Your task to perform on an android device: Go to internet settings Image 0: 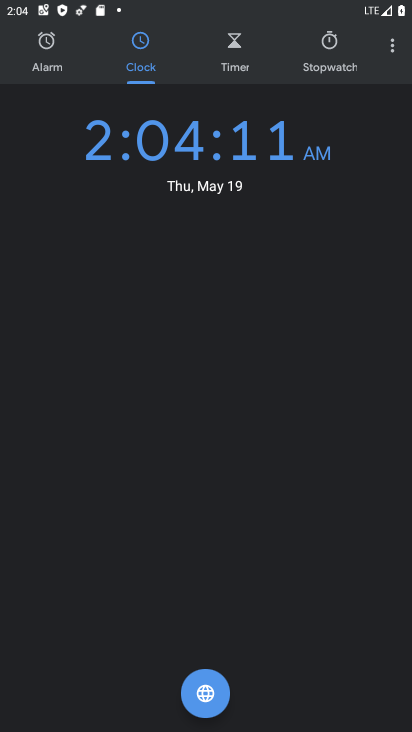
Step 0: press home button
Your task to perform on an android device: Go to internet settings Image 1: 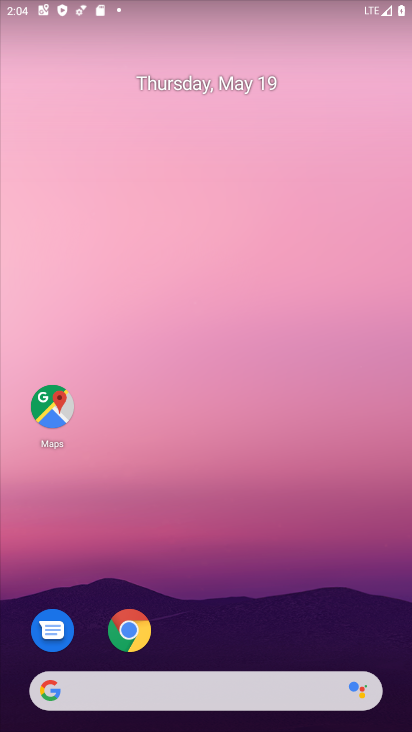
Step 1: drag from (383, 631) to (334, 73)
Your task to perform on an android device: Go to internet settings Image 2: 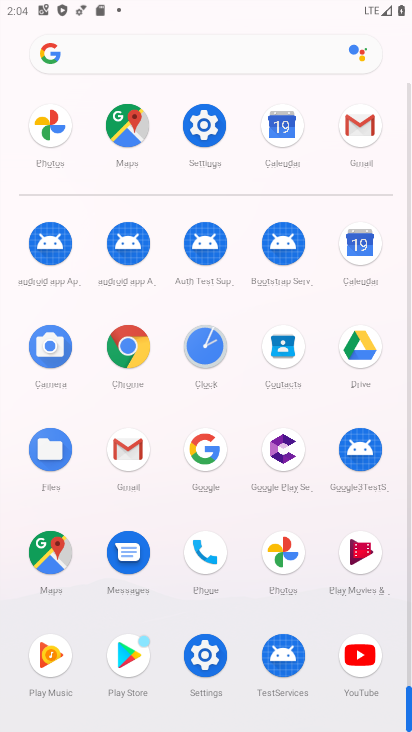
Step 2: click (207, 661)
Your task to perform on an android device: Go to internet settings Image 3: 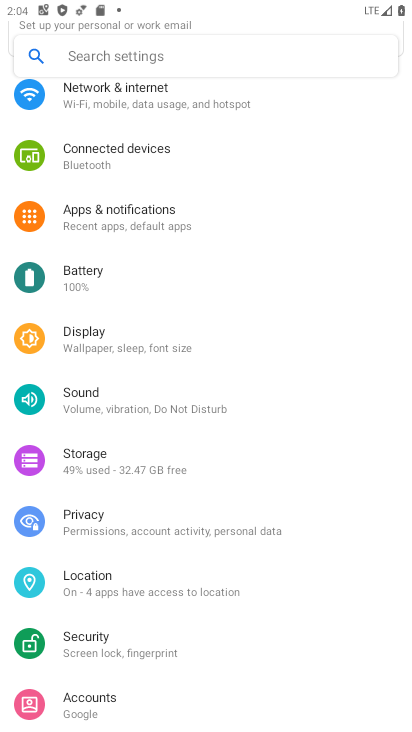
Step 3: click (110, 85)
Your task to perform on an android device: Go to internet settings Image 4: 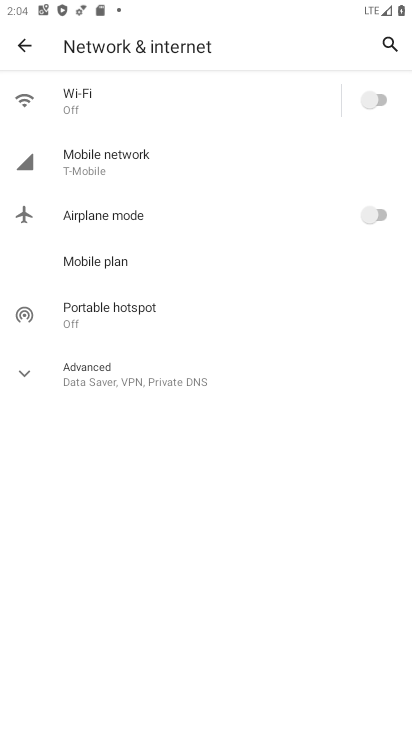
Step 4: click (61, 96)
Your task to perform on an android device: Go to internet settings Image 5: 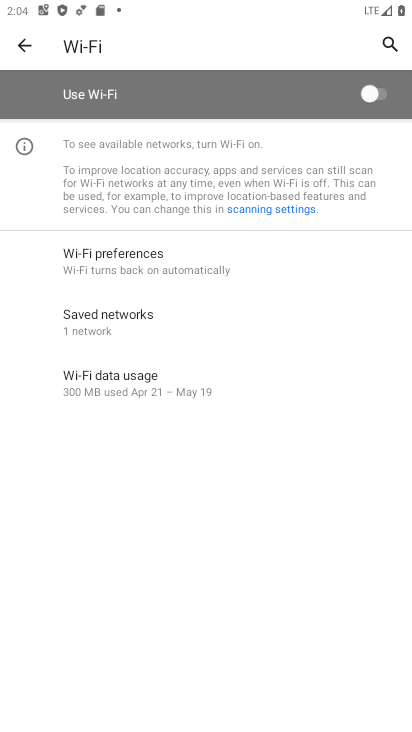
Step 5: task complete